Your task to perform on an android device: Open Google Chrome and click the shortcut for Amazon.com Image 0: 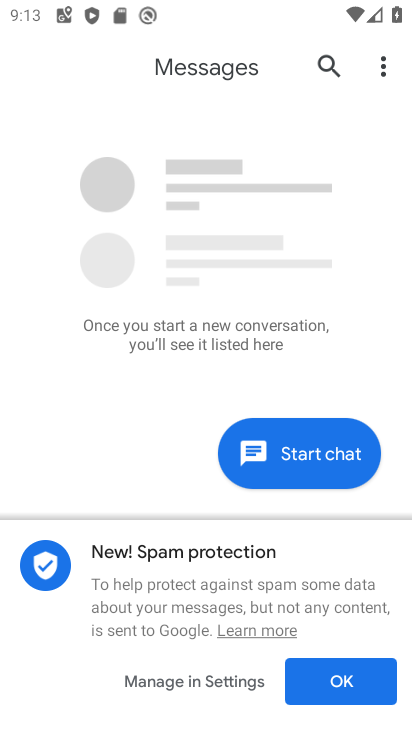
Step 0: press home button
Your task to perform on an android device: Open Google Chrome and click the shortcut for Amazon.com Image 1: 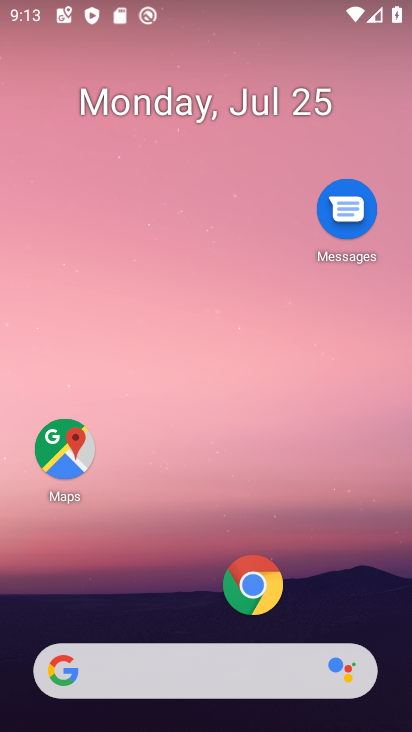
Step 1: click (245, 586)
Your task to perform on an android device: Open Google Chrome and click the shortcut for Amazon.com Image 2: 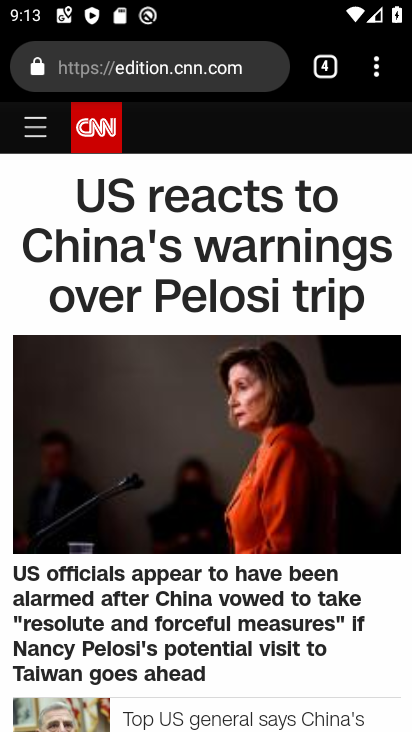
Step 2: drag from (373, 67) to (253, 127)
Your task to perform on an android device: Open Google Chrome and click the shortcut for Amazon.com Image 3: 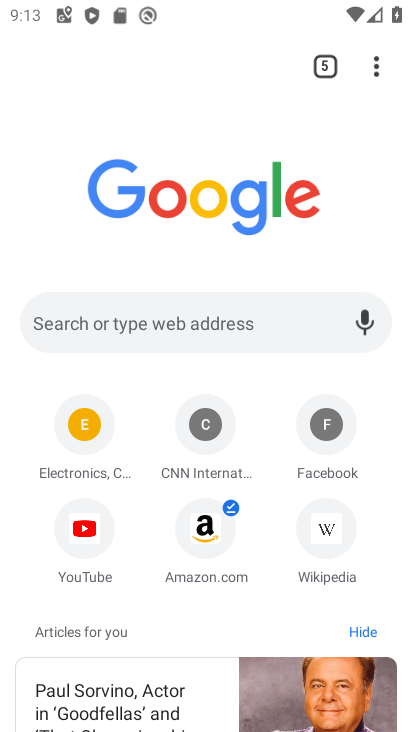
Step 3: click (208, 529)
Your task to perform on an android device: Open Google Chrome and click the shortcut for Amazon.com Image 4: 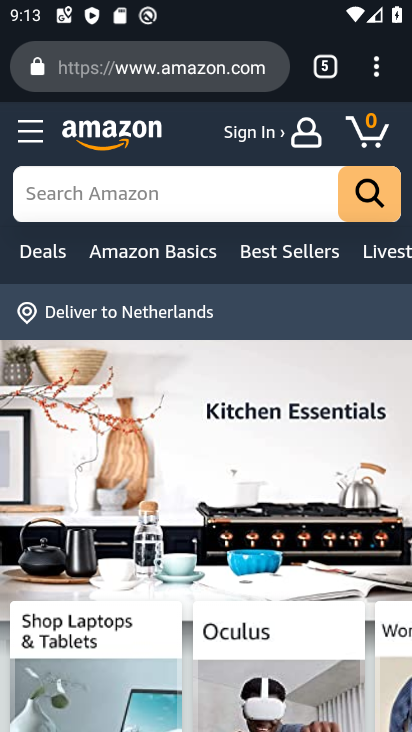
Step 4: task complete